Your task to perform on an android device: all mails in gmail Image 0: 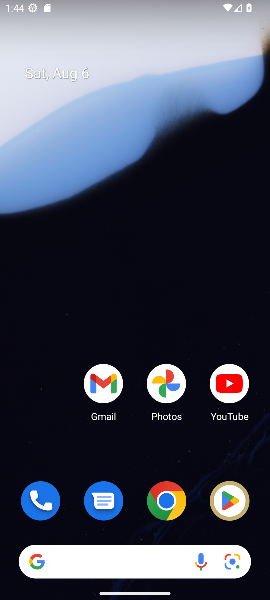
Step 0: drag from (136, 462) to (158, 171)
Your task to perform on an android device: all mails in gmail Image 1: 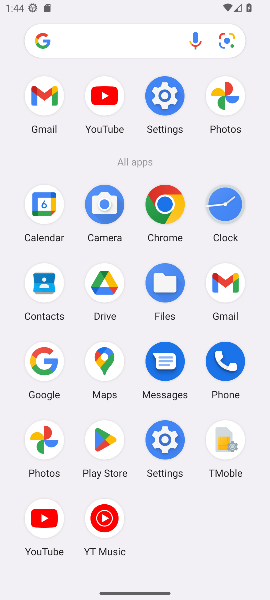
Step 1: click (217, 283)
Your task to perform on an android device: all mails in gmail Image 2: 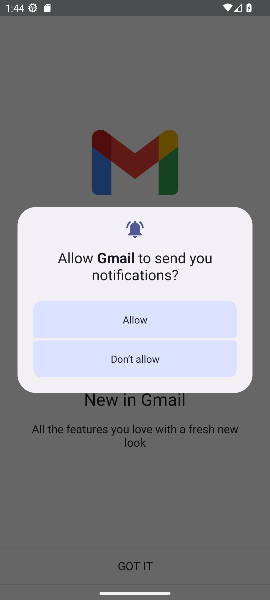
Step 2: click (121, 323)
Your task to perform on an android device: all mails in gmail Image 3: 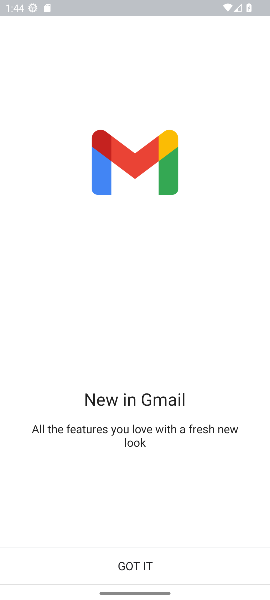
Step 3: click (128, 569)
Your task to perform on an android device: all mails in gmail Image 4: 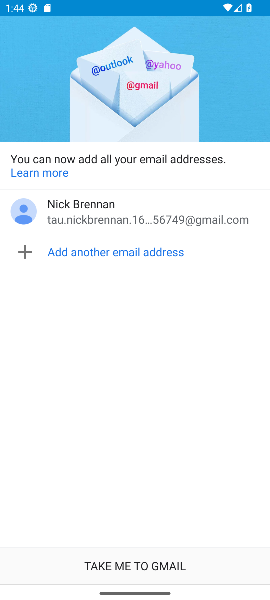
Step 4: click (128, 569)
Your task to perform on an android device: all mails in gmail Image 5: 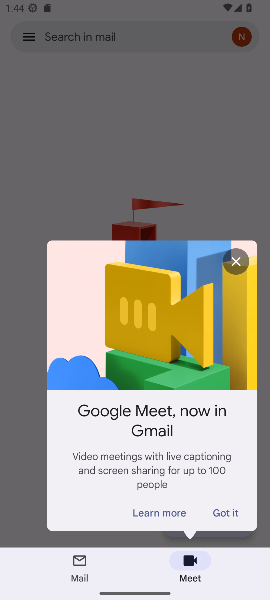
Step 5: drag from (230, 513) to (149, 555)
Your task to perform on an android device: all mails in gmail Image 6: 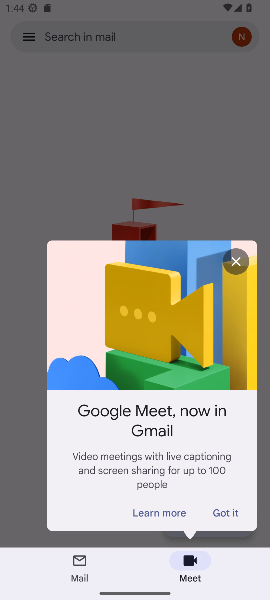
Step 6: click (237, 263)
Your task to perform on an android device: all mails in gmail Image 7: 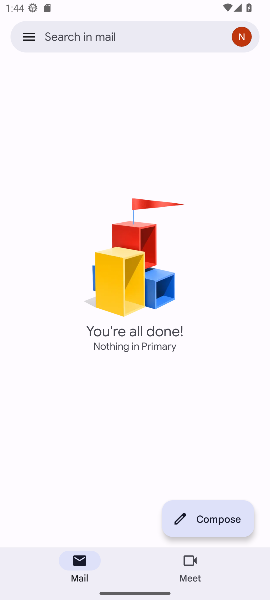
Step 7: click (29, 40)
Your task to perform on an android device: all mails in gmail Image 8: 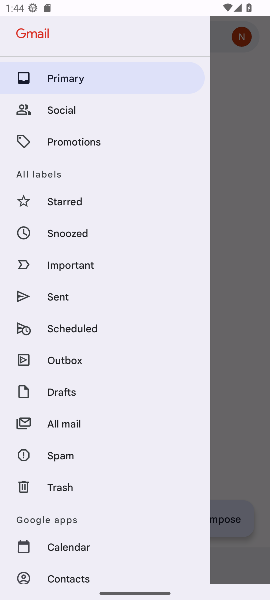
Step 8: click (56, 424)
Your task to perform on an android device: all mails in gmail Image 9: 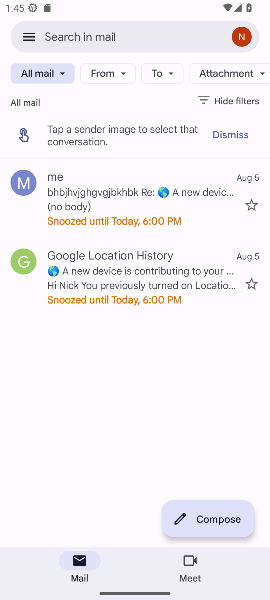
Step 9: task complete